Your task to perform on an android device: change the upload size in google photos Image 0: 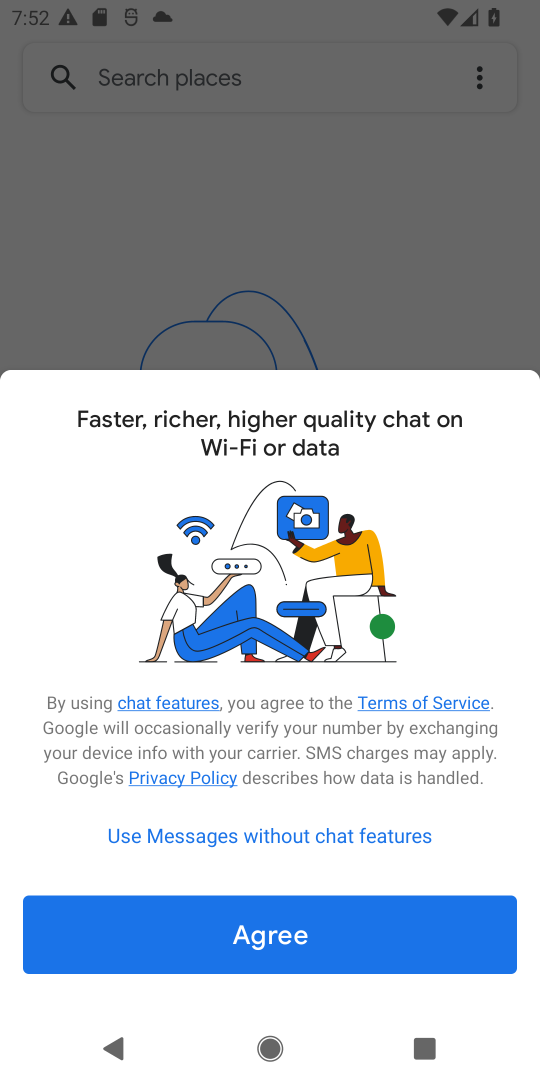
Step 0: press home button
Your task to perform on an android device: change the upload size in google photos Image 1: 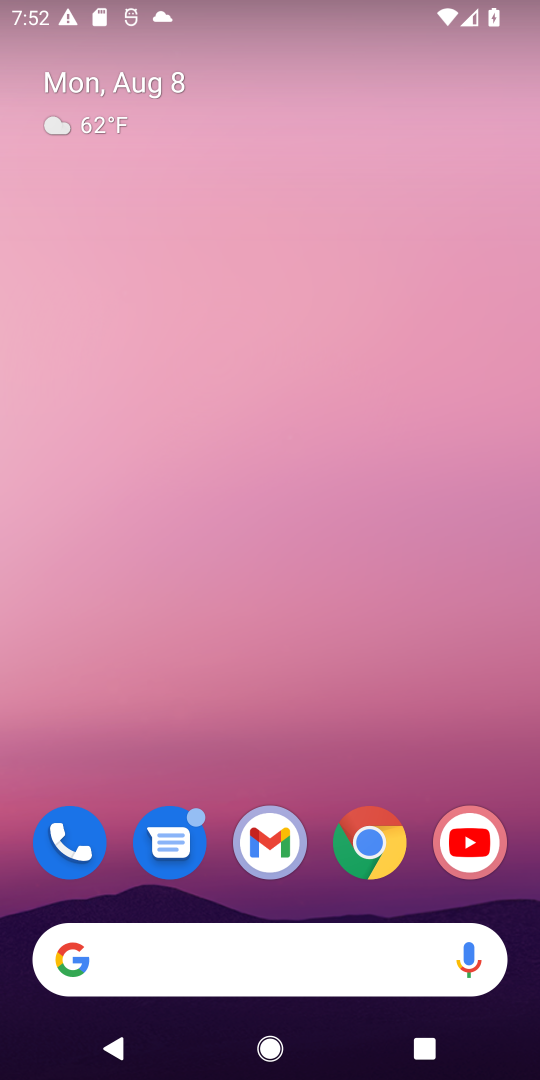
Step 1: drag from (374, 721) to (352, 1)
Your task to perform on an android device: change the upload size in google photos Image 2: 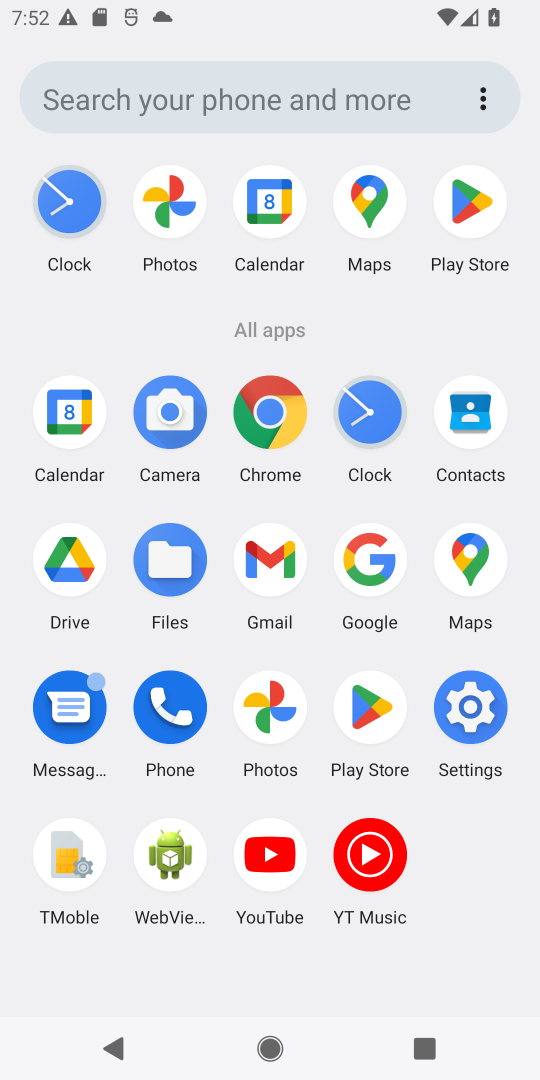
Step 2: click (177, 198)
Your task to perform on an android device: change the upload size in google photos Image 3: 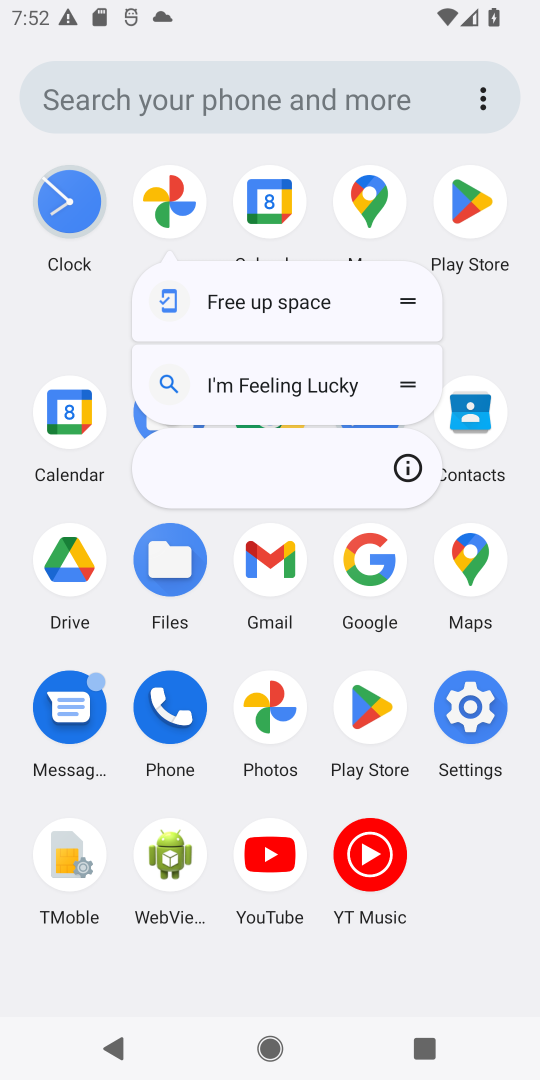
Step 3: click (177, 196)
Your task to perform on an android device: change the upload size in google photos Image 4: 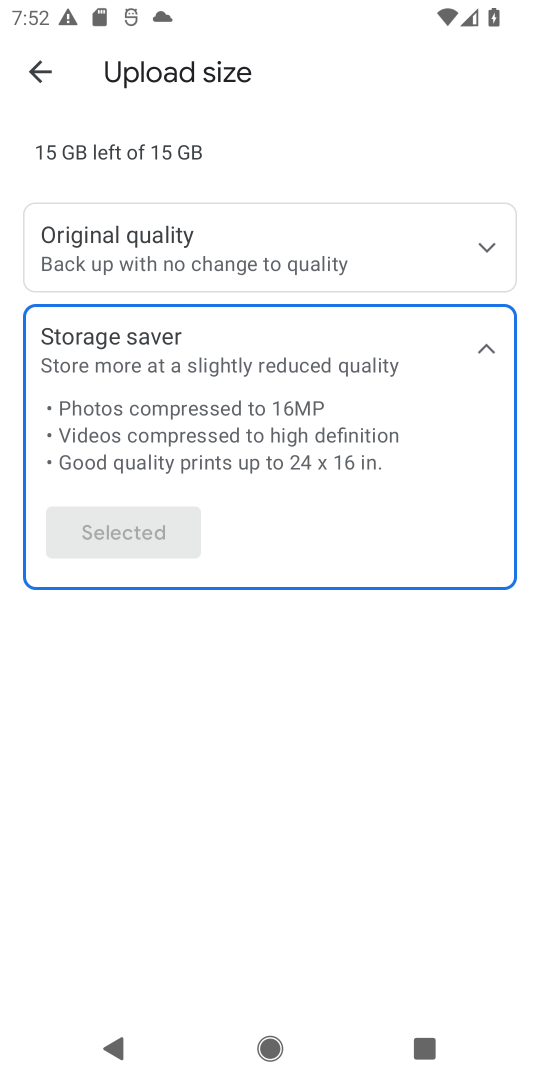
Step 4: click (177, 241)
Your task to perform on an android device: change the upload size in google photos Image 5: 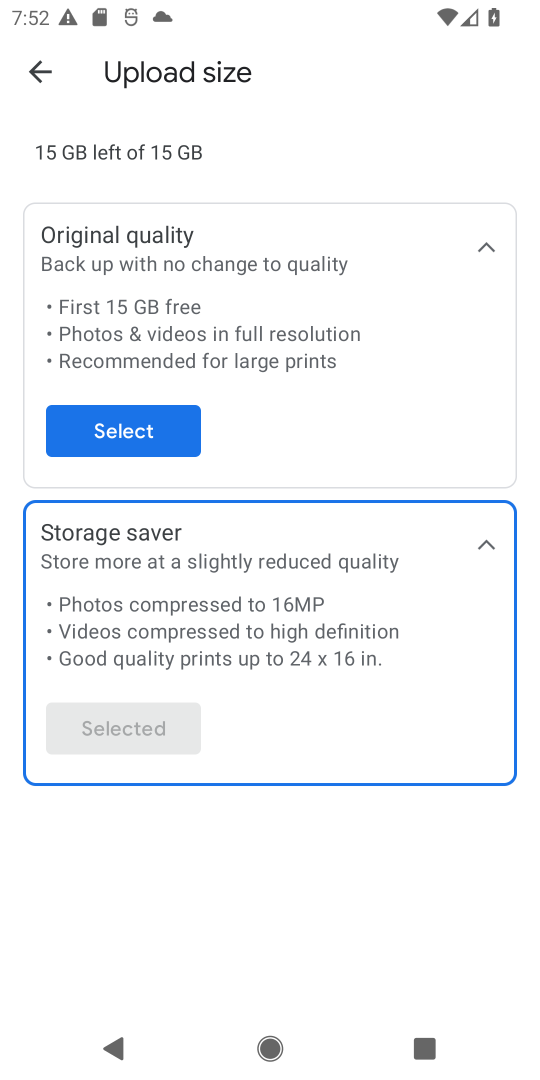
Step 5: click (162, 427)
Your task to perform on an android device: change the upload size in google photos Image 6: 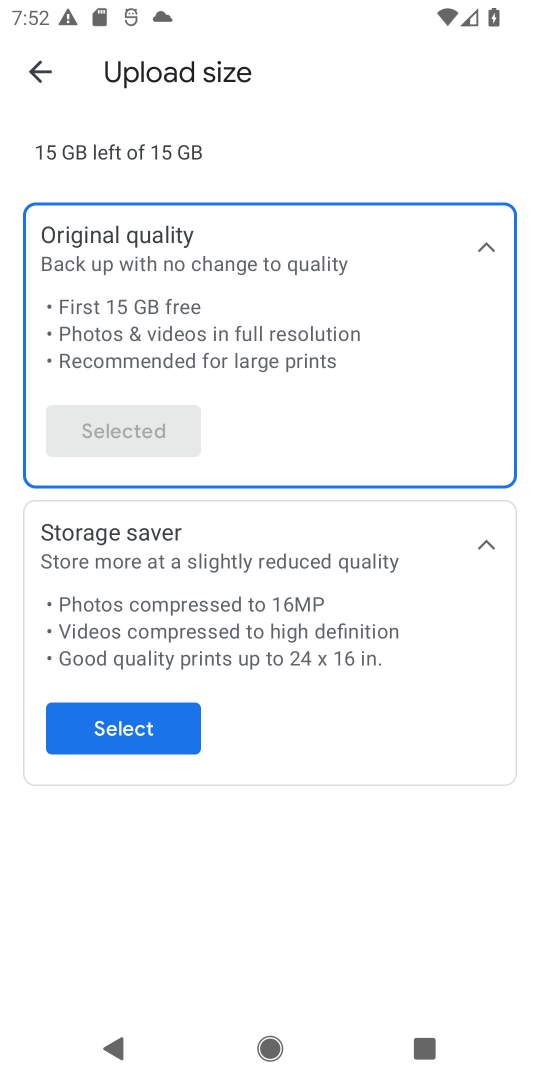
Step 6: task complete